Your task to perform on an android device: move a message to another label in the gmail app Image 0: 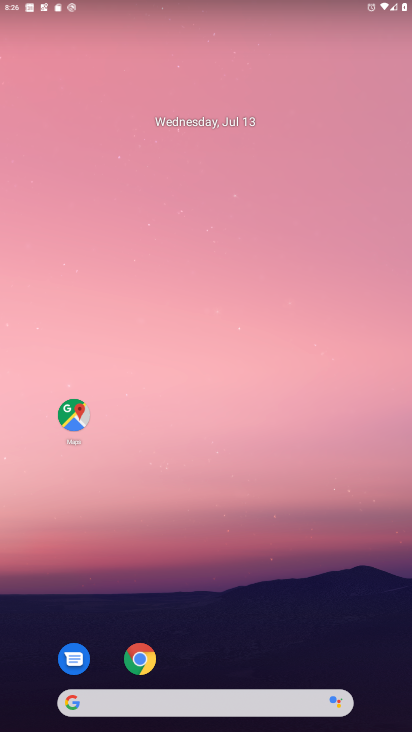
Step 0: drag from (184, 490) to (171, 125)
Your task to perform on an android device: move a message to another label in the gmail app Image 1: 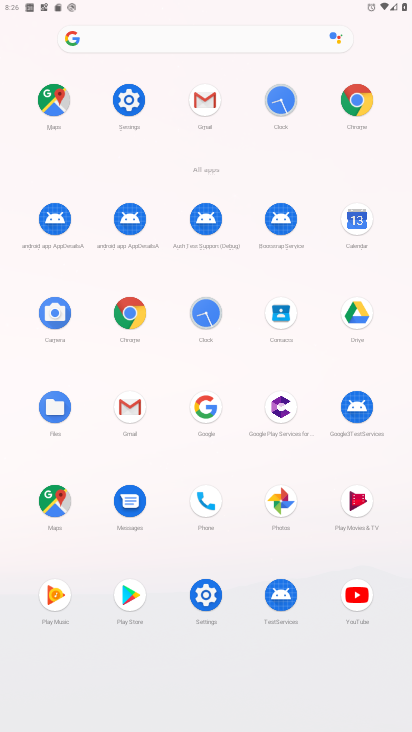
Step 1: click (203, 101)
Your task to perform on an android device: move a message to another label in the gmail app Image 2: 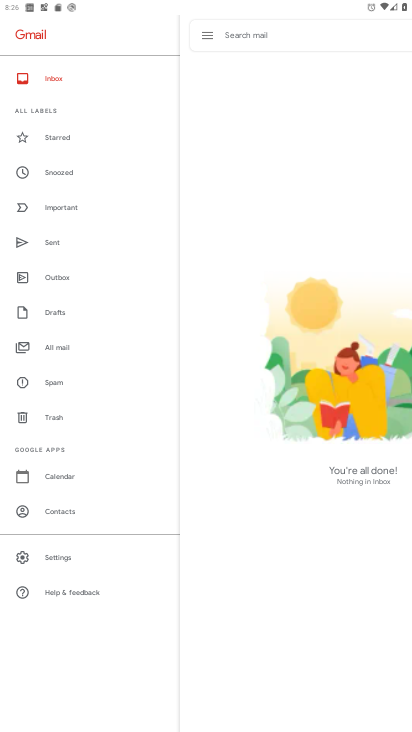
Step 2: click (60, 342)
Your task to perform on an android device: move a message to another label in the gmail app Image 3: 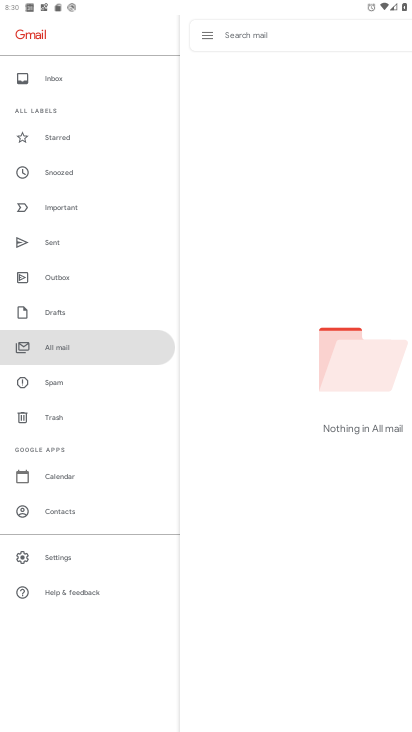
Step 3: task complete